Your task to perform on an android device: Show me the alarms in the clock app Image 0: 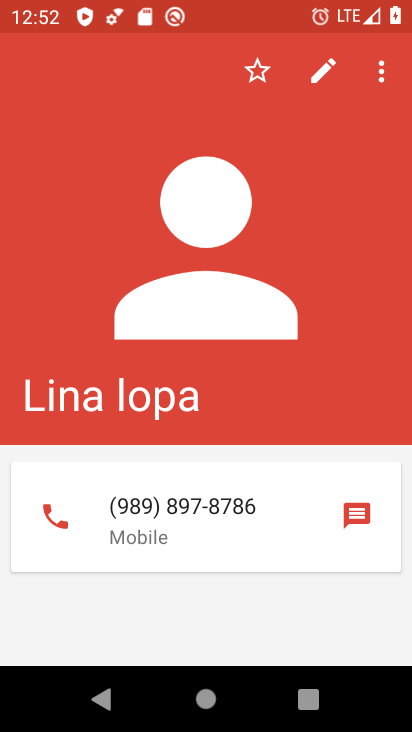
Step 0: press home button
Your task to perform on an android device: Show me the alarms in the clock app Image 1: 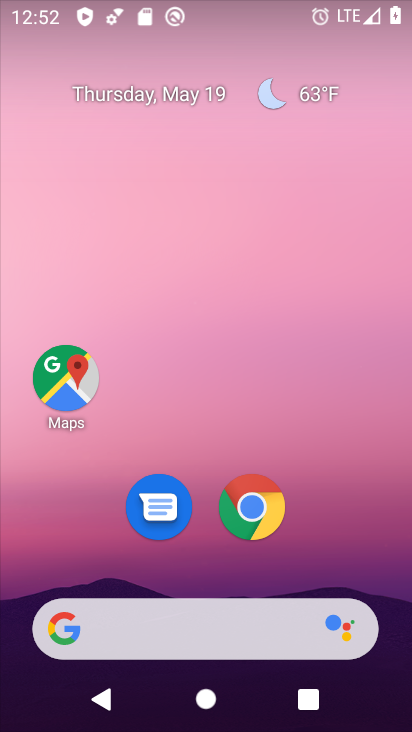
Step 1: drag from (265, 583) to (269, 360)
Your task to perform on an android device: Show me the alarms in the clock app Image 2: 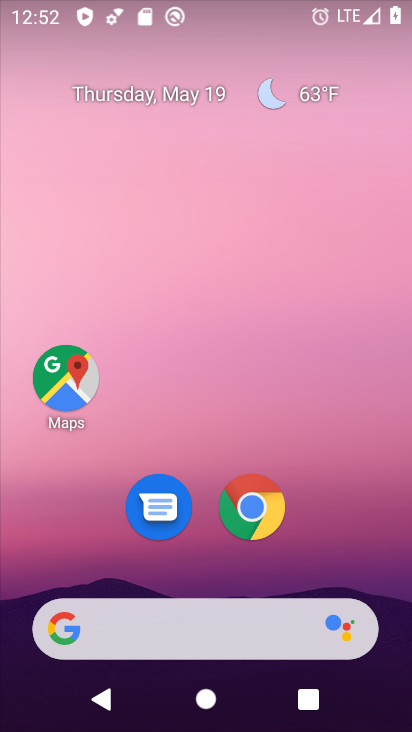
Step 2: drag from (255, 536) to (328, 176)
Your task to perform on an android device: Show me the alarms in the clock app Image 3: 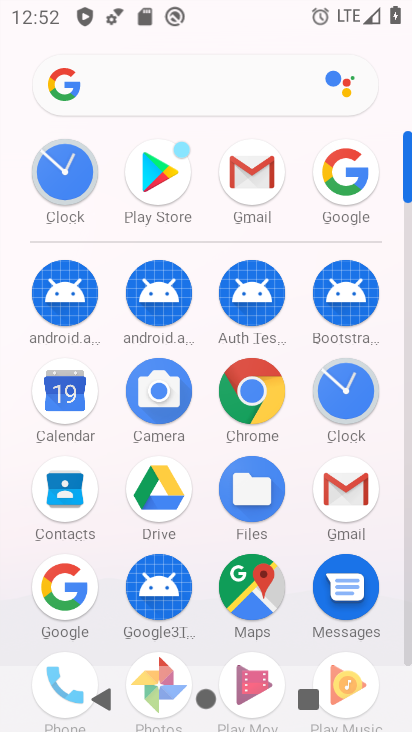
Step 3: click (326, 381)
Your task to perform on an android device: Show me the alarms in the clock app Image 4: 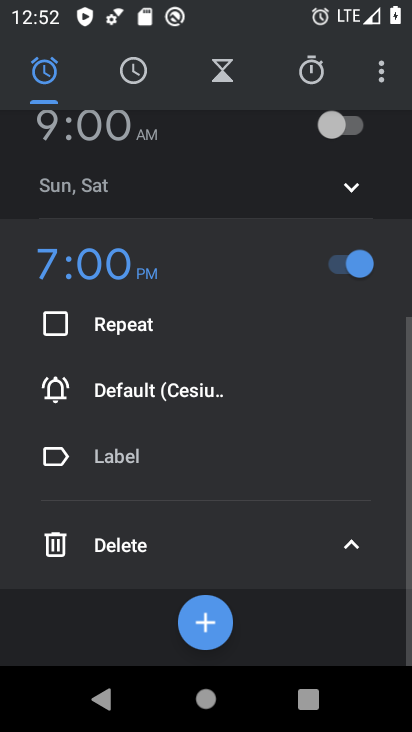
Step 4: task complete